Your task to perform on an android device: change the upload size in google photos Image 0: 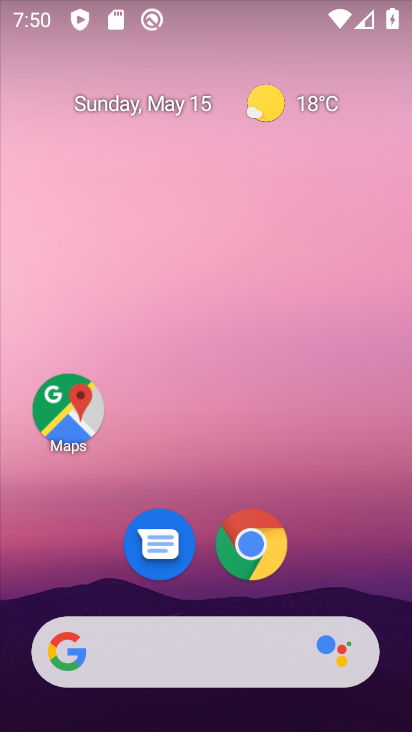
Step 0: drag from (350, 573) to (380, 139)
Your task to perform on an android device: change the upload size in google photos Image 1: 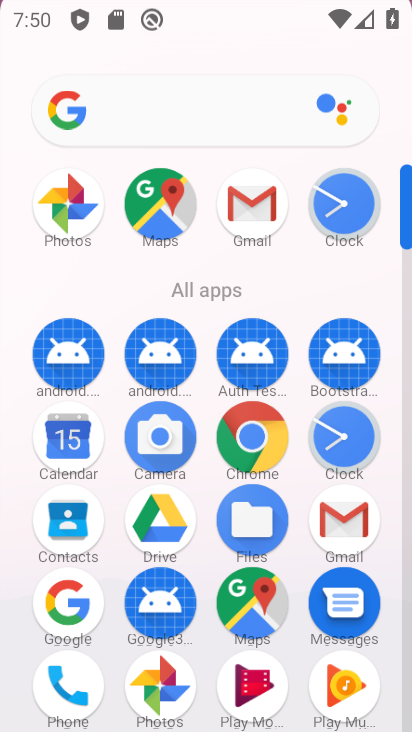
Step 1: drag from (325, 508) to (307, 101)
Your task to perform on an android device: change the upload size in google photos Image 2: 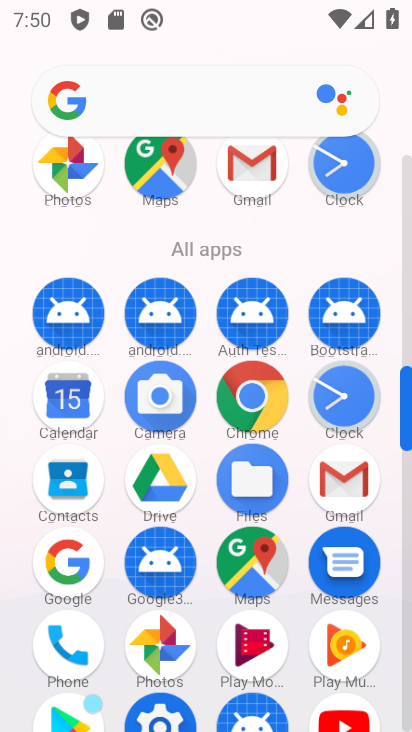
Step 2: click (174, 644)
Your task to perform on an android device: change the upload size in google photos Image 3: 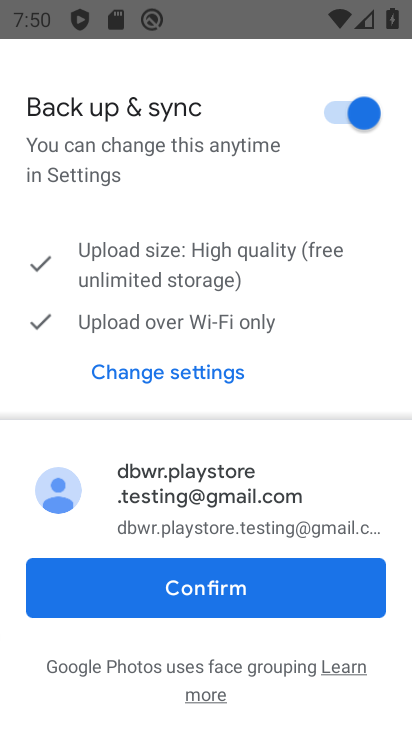
Step 3: click (208, 592)
Your task to perform on an android device: change the upload size in google photos Image 4: 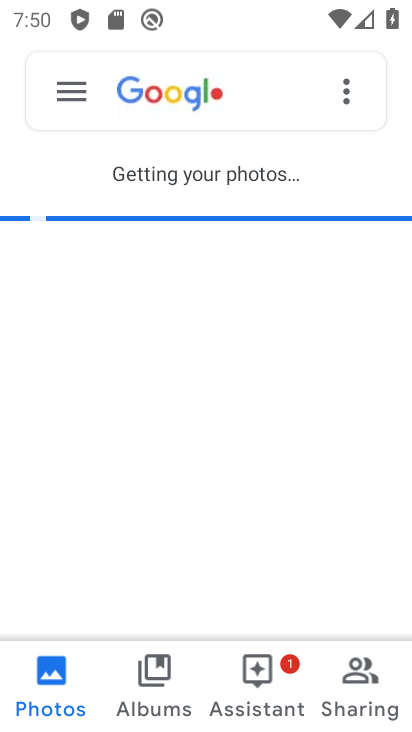
Step 4: click (69, 80)
Your task to perform on an android device: change the upload size in google photos Image 5: 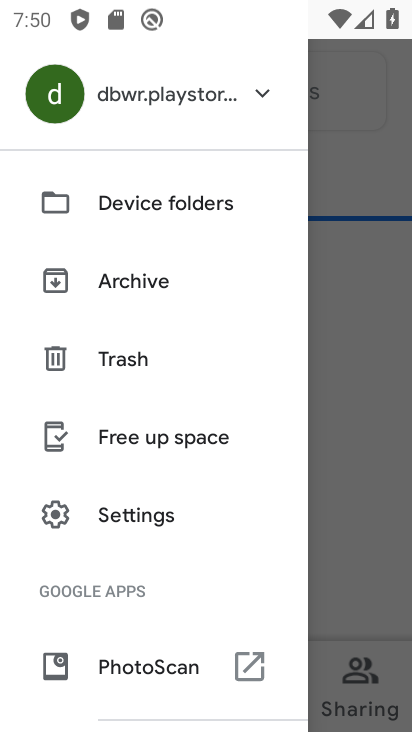
Step 5: drag from (113, 651) to (204, 226)
Your task to perform on an android device: change the upload size in google photos Image 6: 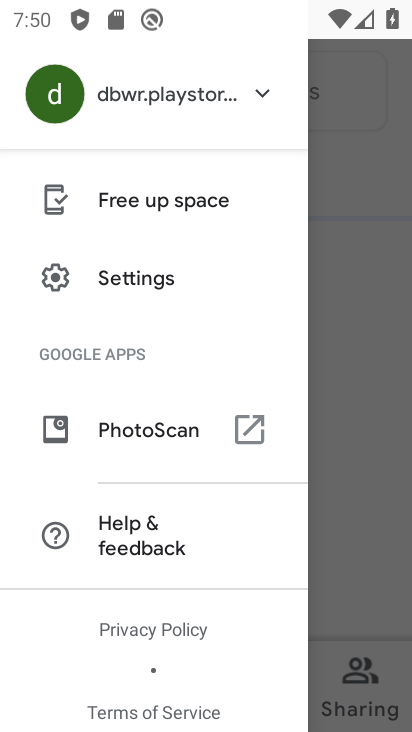
Step 6: drag from (132, 540) to (158, 344)
Your task to perform on an android device: change the upload size in google photos Image 7: 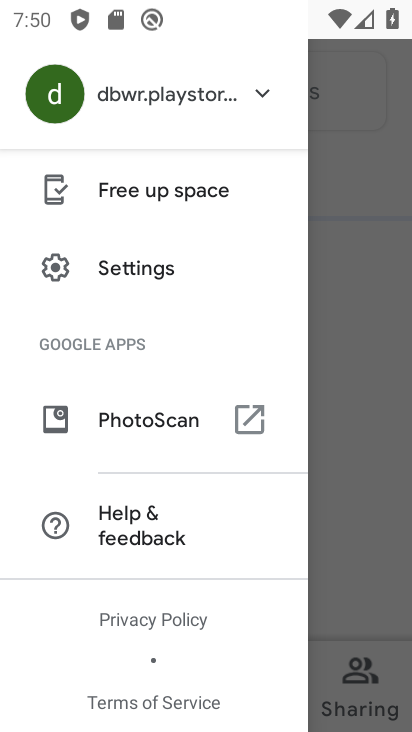
Step 7: click (153, 258)
Your task to perform on an android device: change the upload size in google photos Image 8: 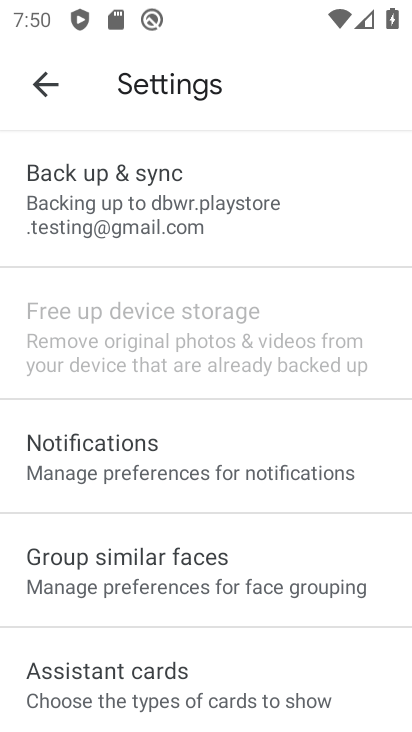
Step 8: click (182, 207)
Your task to perform on an android device: change the upload size in google photos Image 9: 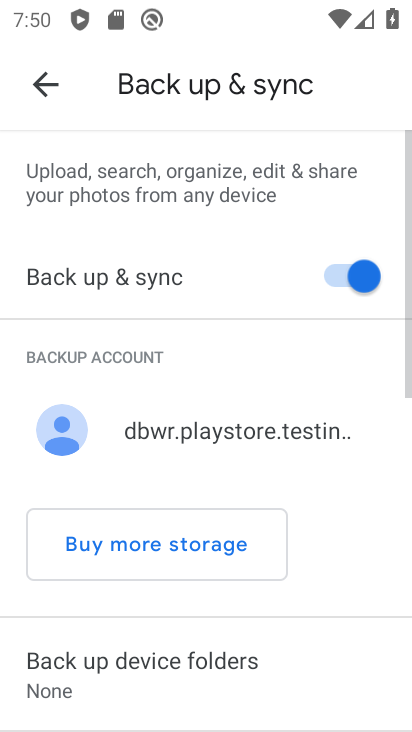
Step 9: drag from (233, 442) to (287, 48)
Your task to perform on an android device: change the upload size in google photos Image 10: 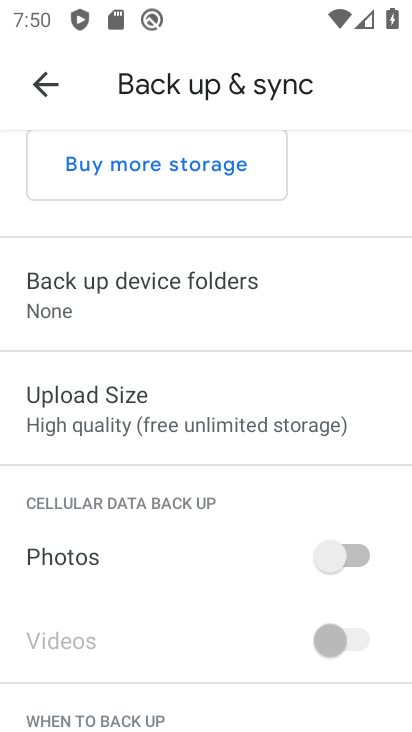
Step 10: click (241, 423)
Your task to perform on an android device: change the upload size in google photos Image 11: 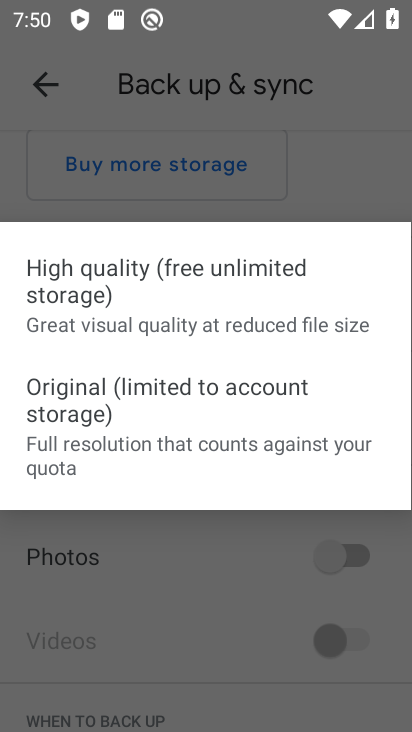
Step 11: click (247, 555)
Your task to perform on an android device: change the upload size in google photos Image 12: 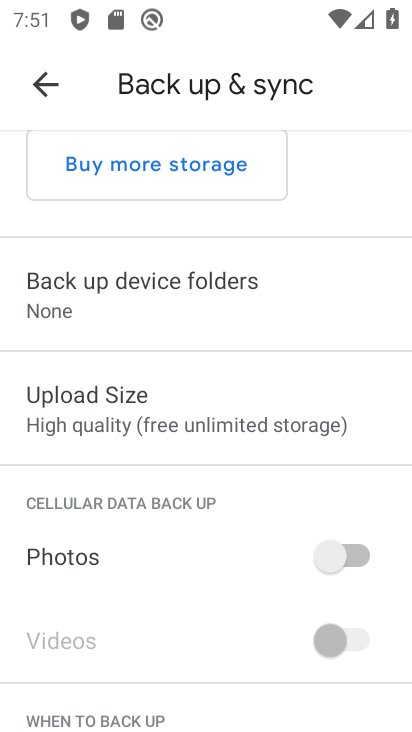
Step 12: click (226, 422)
Your task to perform on an android device: change the upload size in google photos Image 13: 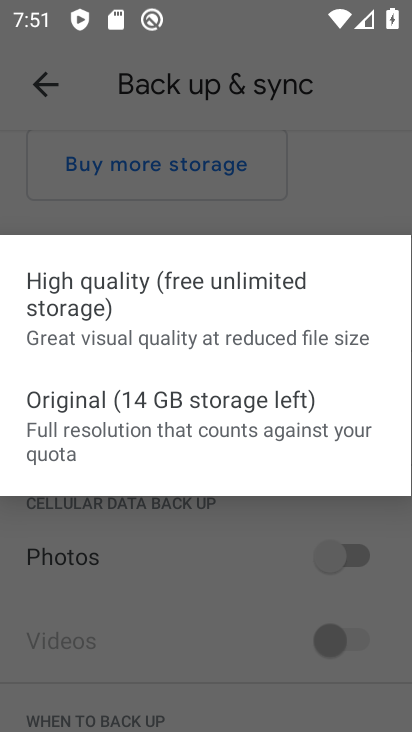
Step 13: click (158, 432)
Your task to perform on an android device: change the upload size in google photos Image 14: 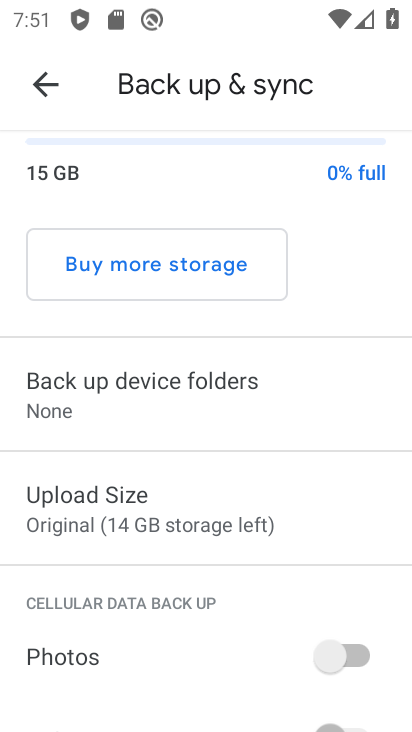
Step 14: task complete